Your task to perform on an android device: Open my contact list Image 0: 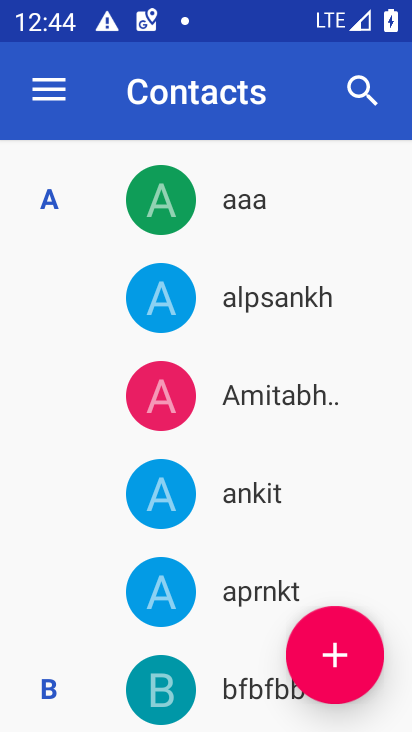
Step 0: drag from (225, 577) to (225, 234)
Your task to perform on an android device: Open my contact list Image 1: 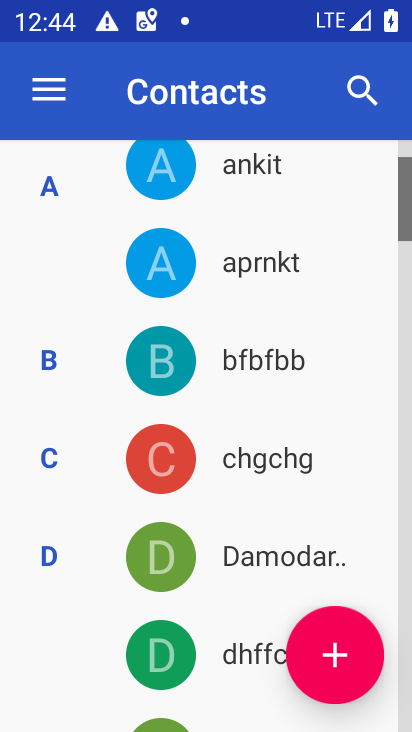
Step 1: task complete